Your task to perform on an android device: Open settings Image 0: 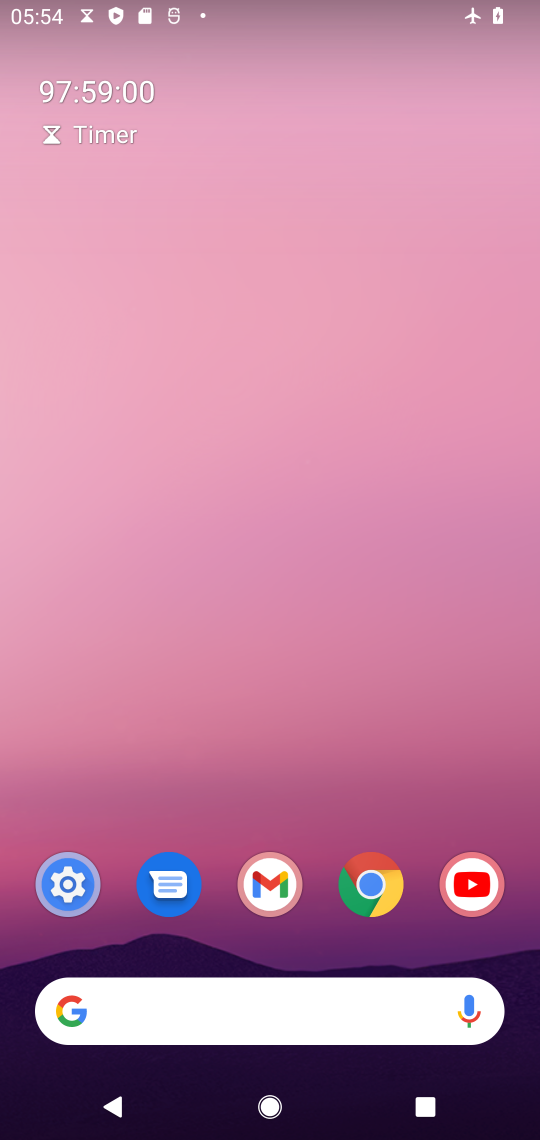
Step 0: drag from (252, 948) to (373, 293)
Your task to perform on an android device: Open settings Image 1: 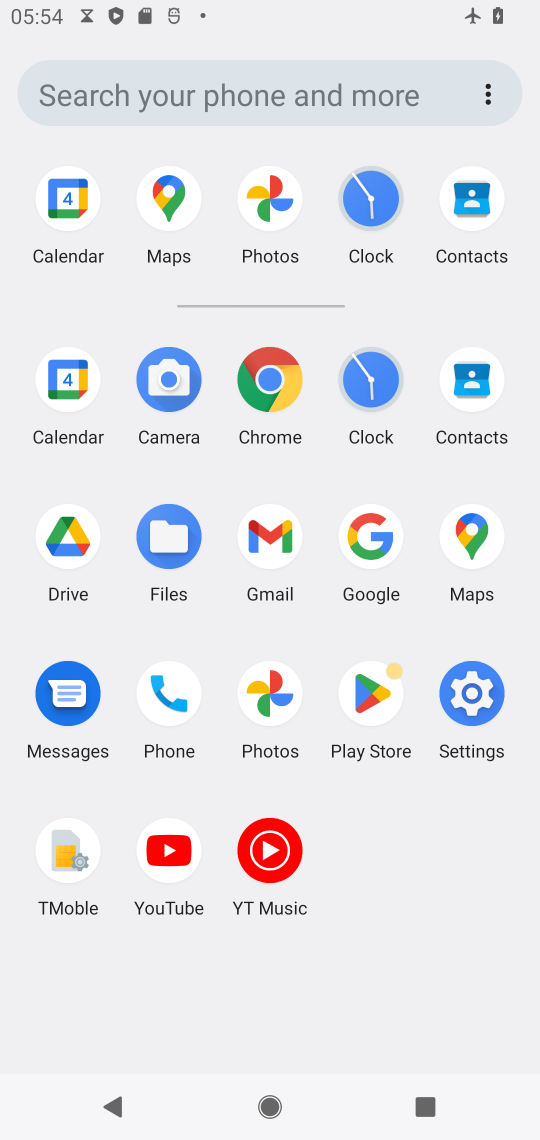
Step 1: click (469, 683)
Your task to perform on an android device: Open settings Image 2: 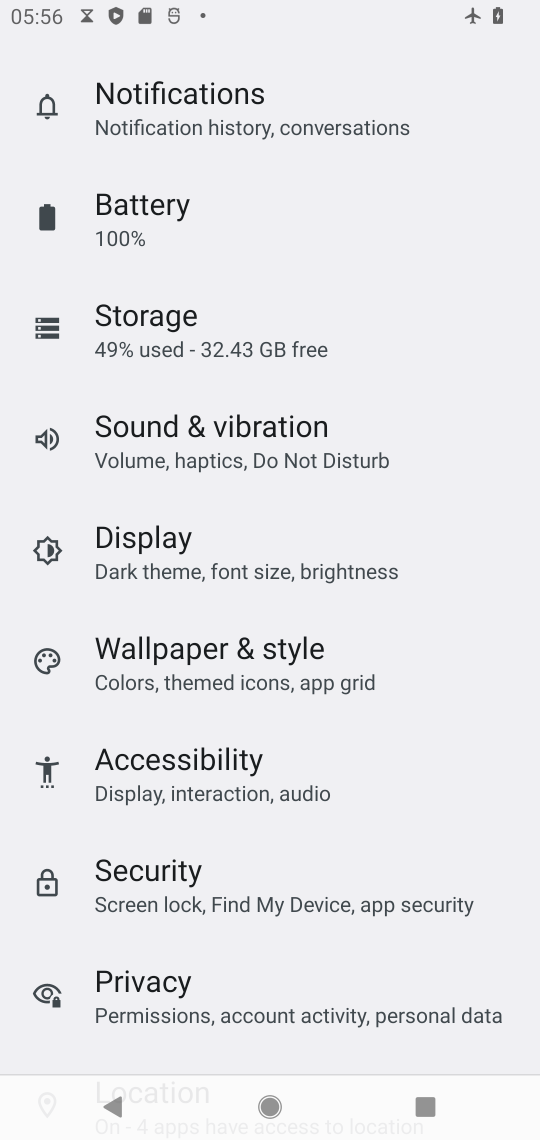
Step 2: task complete